Your task to perform on an android device: Open the calendar app, open the side menu, and click the "Day" option Image 0: 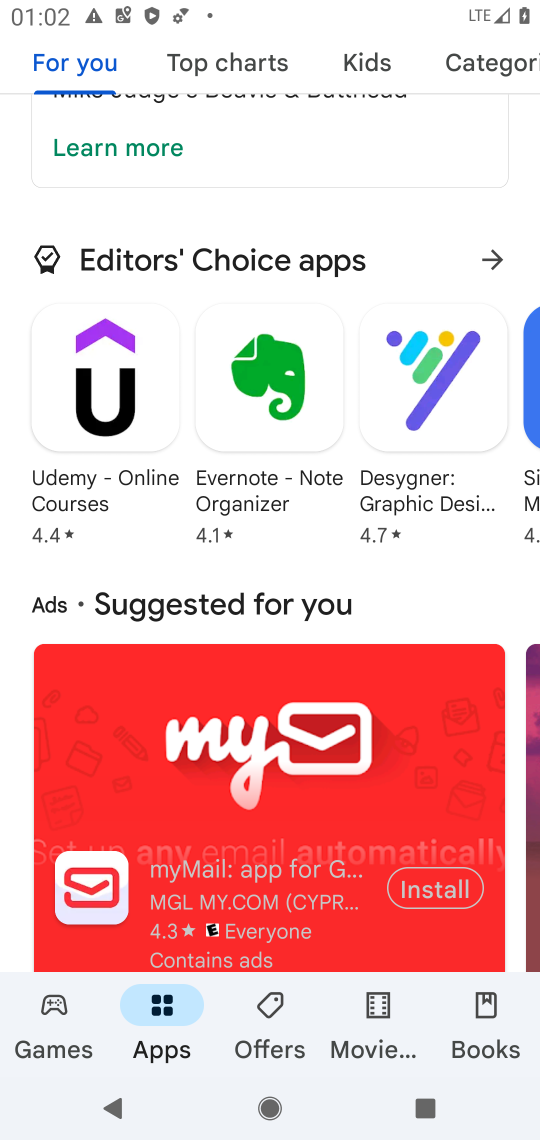
Step 0: press home button
Your task to perform on an android device: Open the calendar app, open the side menu, and click the "Day" option Image 1: 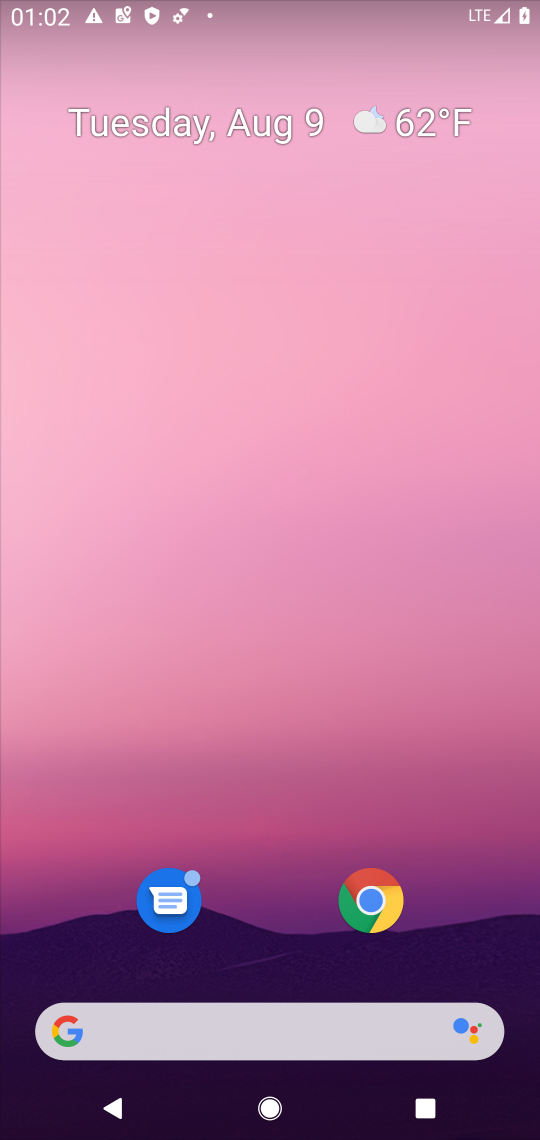
Step 1: drag from (253, 890) to (300, 342)
Your task to perform on an android device: Open the calendar app, open the side menu, and click the "Day" option Image 2: 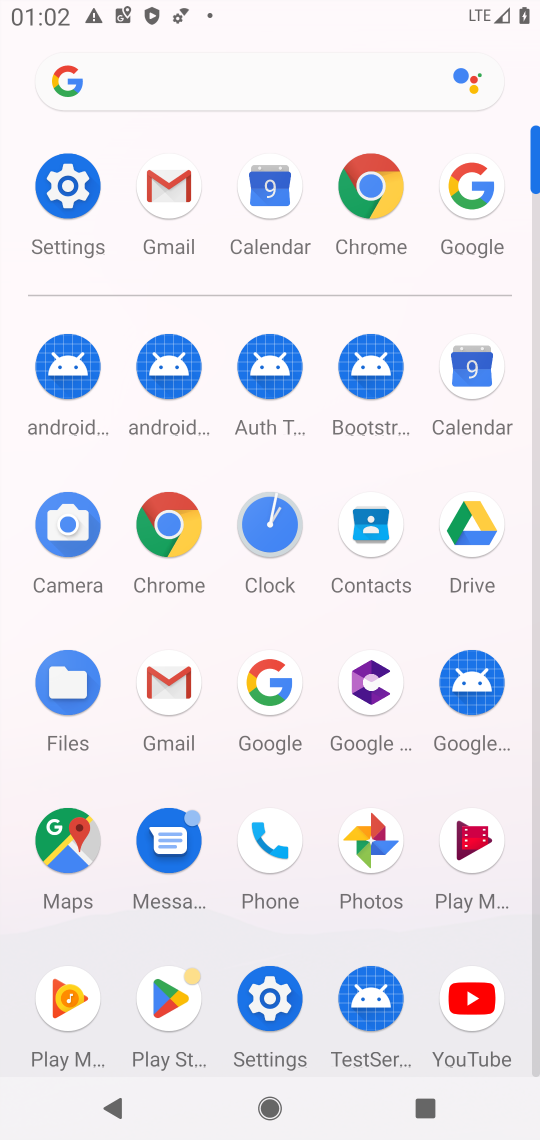
Step 2: click (468, 378)
Your task to perform on an android device: Open the calendar app, open the side menu, and click the "Day" option Image 3: 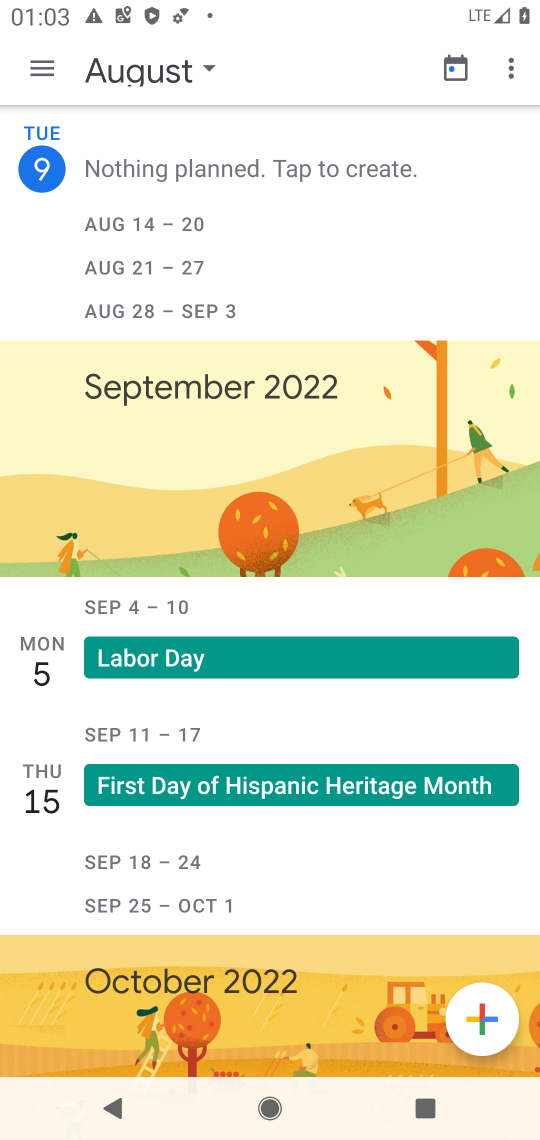
Step 3: click (42, 68)
Your task to perform on an android device: Open the calendar app, open the side menu, and click the "Day" option Image 4: 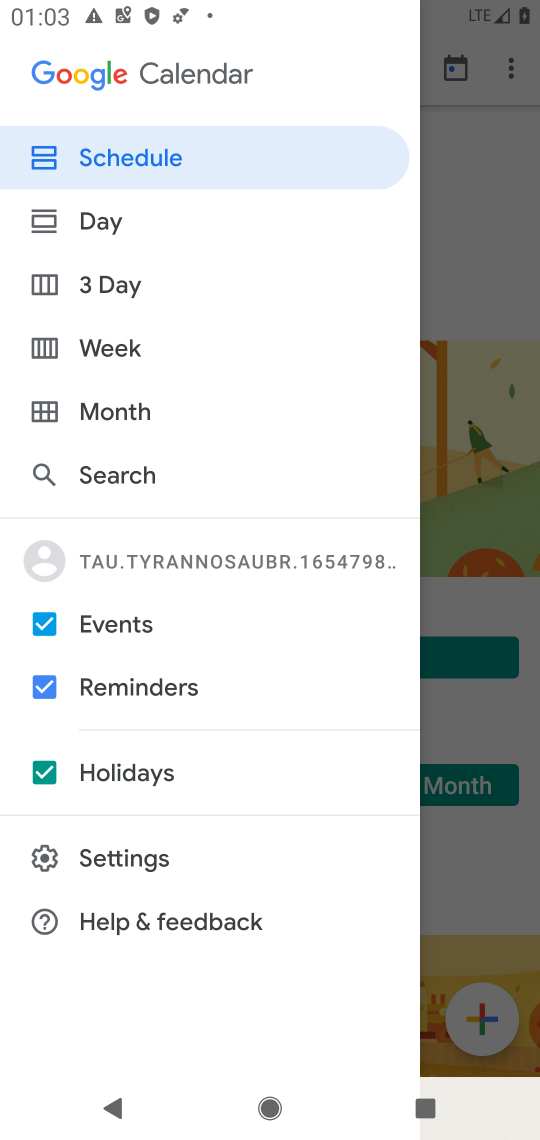
Step 4: click (119, 220)
Your task to perform on an android device: Open the calendar app, open the side menu, and click the "Day" option Image 5: 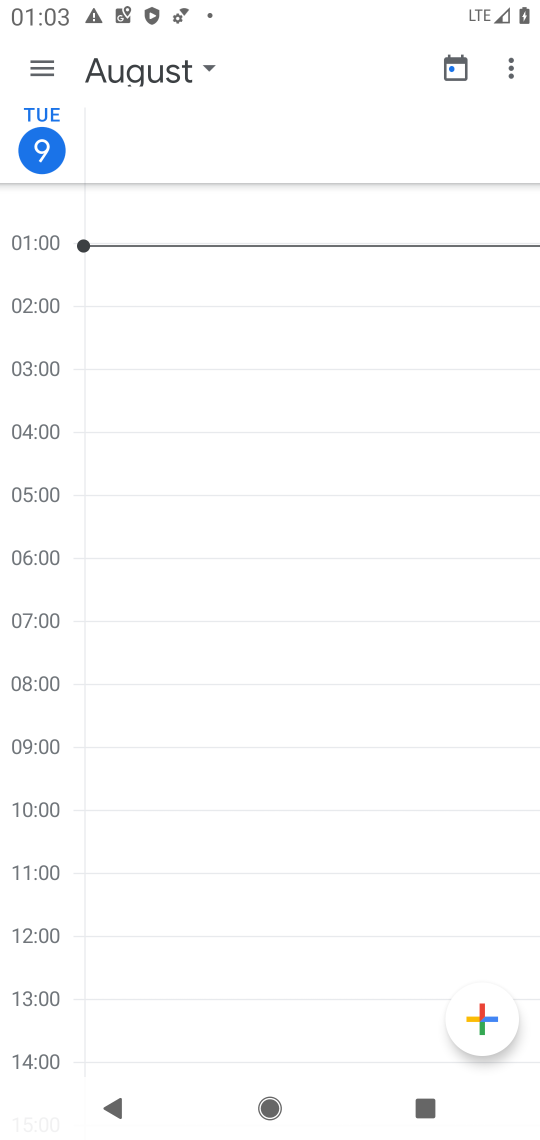
Step 5: task complete